Your task to perform on an android device: find photos in the google photos app Image 0: 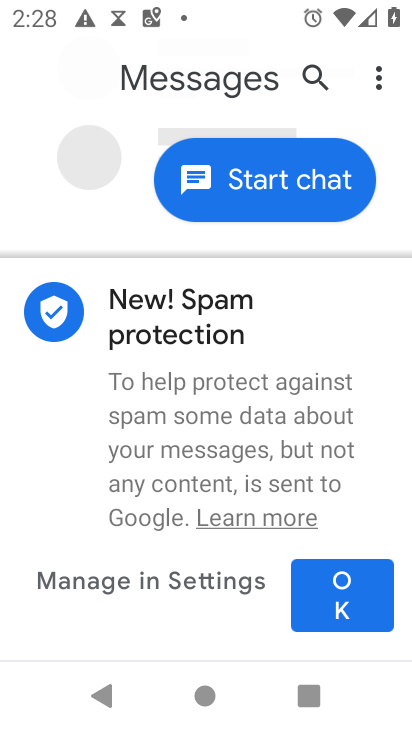
Step 0: press back button
Your task to perform on an android device: find photos in the google photos app Image 1: 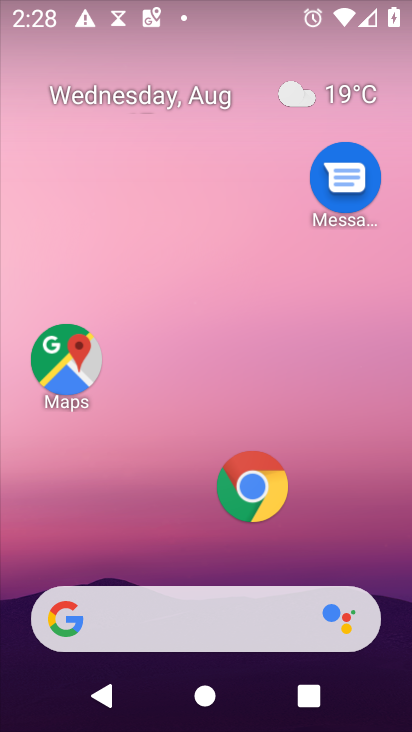
Step 1: drag from (177, 508) to (254, 17)
Your task to perform on an android device: find photos in the google photos app Image 2: 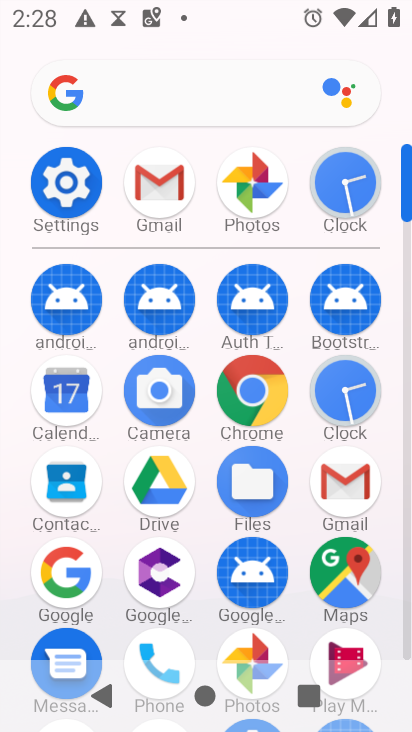
Step 2: click (251, 182)
Your task to perform on an android device: find photos in the google photos app Image 3: 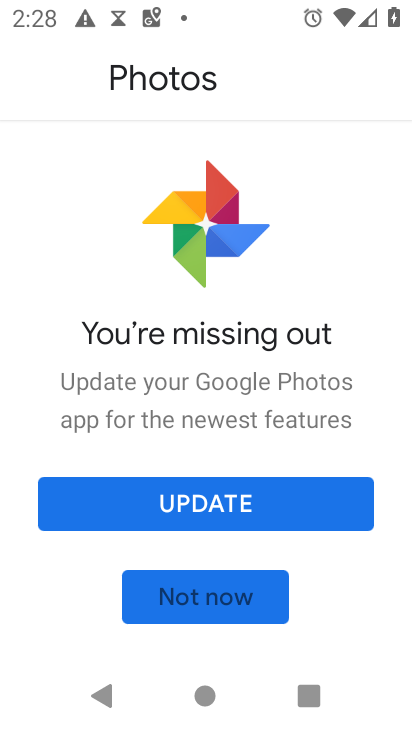
Step 3: click (206, 591)
Your task to perform on an android device: find photos in the google photos app Image 4: 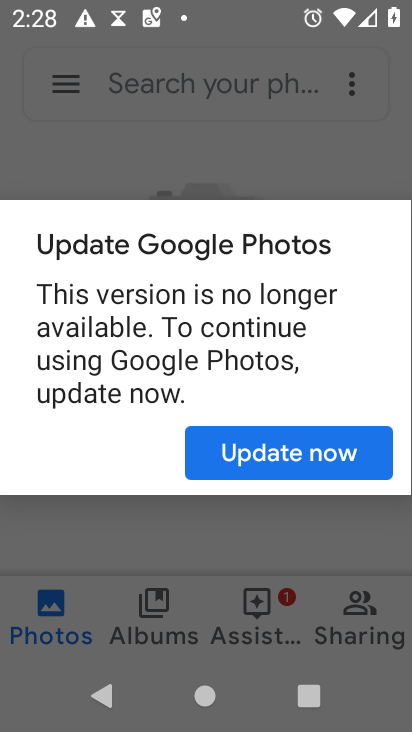
Step 4: click (267, 460)
Your task to perform on an android device: find photos in the google photos app Image 5: 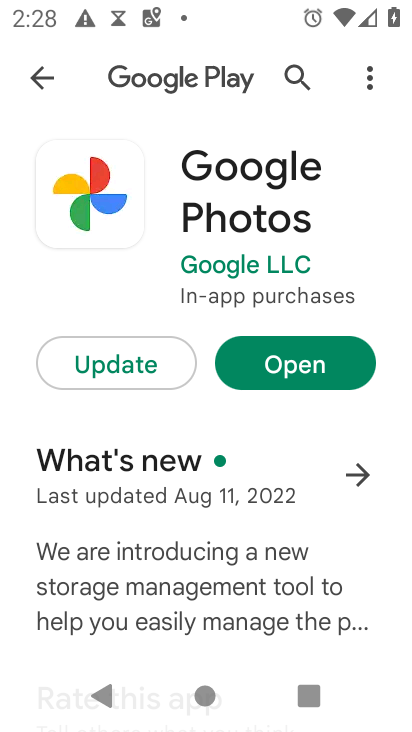
Step 5: click (291, 369)
Your task to perform on an android device: find photos in the google photos app Image 6: 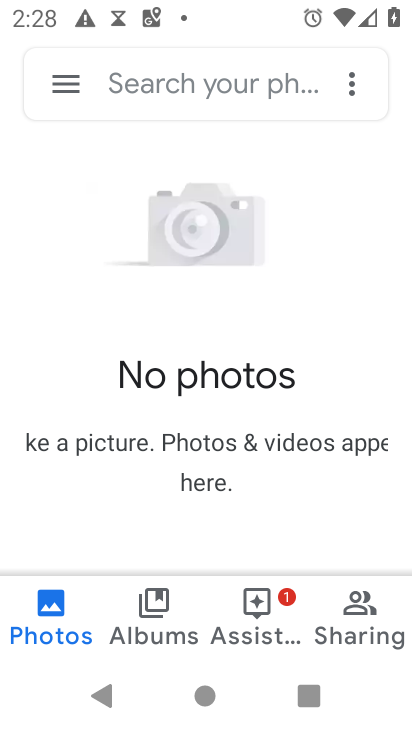
Step 6: click (29, 627)
Your task to perform on an android device: find photos in the google photos app Image 7: 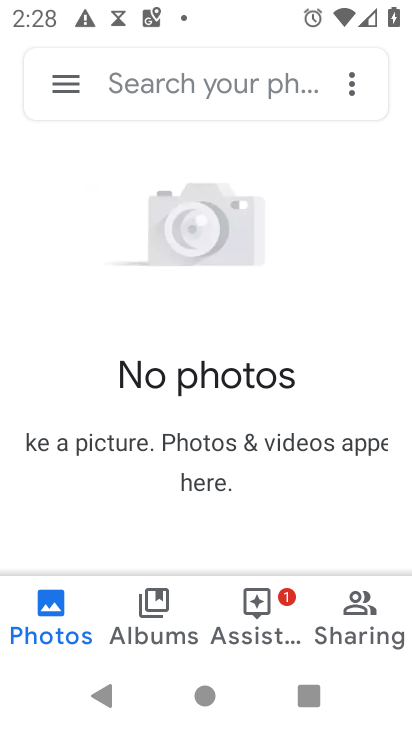
Step 7: task complete